Your task to perform on an android device: Open privacy settings Image 0: 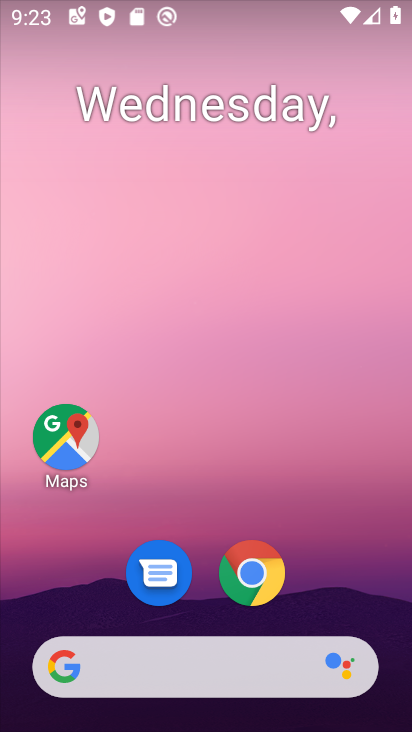
Step 0: click (250, 558)
Your task to perform on an android device: Open privacy settings Image 1: 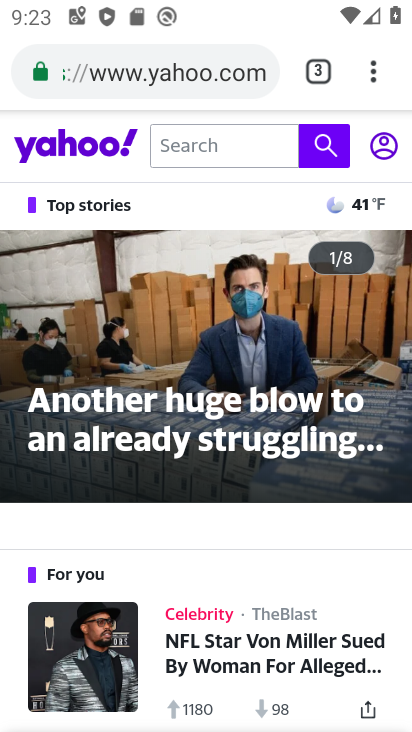
Step 1: click (370, 62)
Your task to perform on an android device: Open privacy settings Image 2: 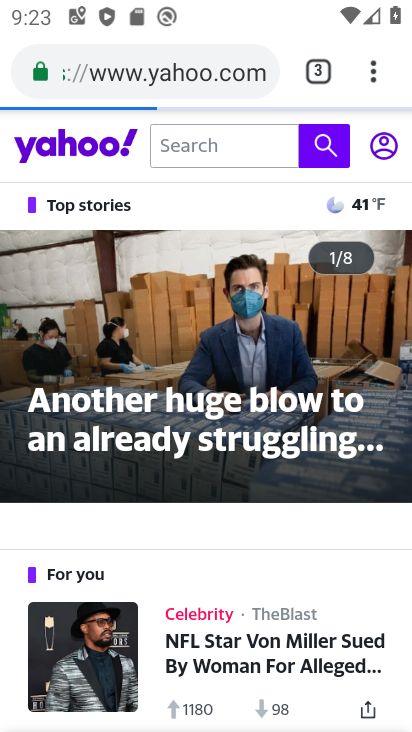
Step 2: click (370, 62)
Your task to perform on an android device: Open privacy settings Image 3: 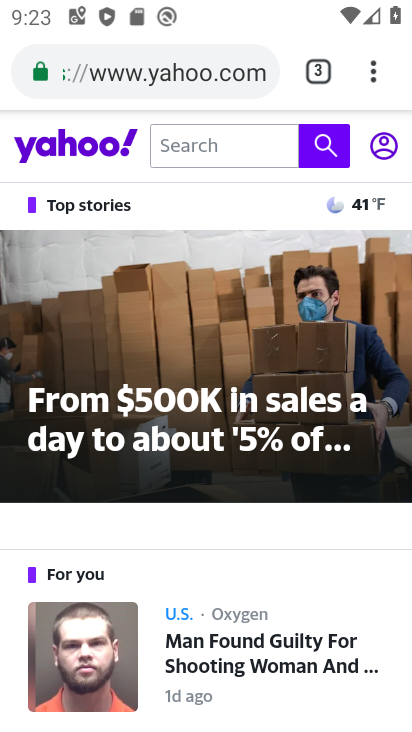
Step 3: click (370, 62)
Your task to perform on an android device: Open privacy settings Image 4: 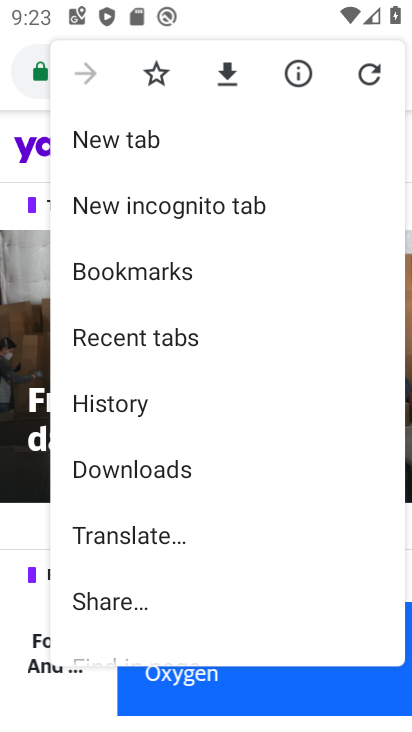
Step 4: drag from (207, 472) to (186, 267)
Your task to perform on an android device: Open privacy settings Image 5: 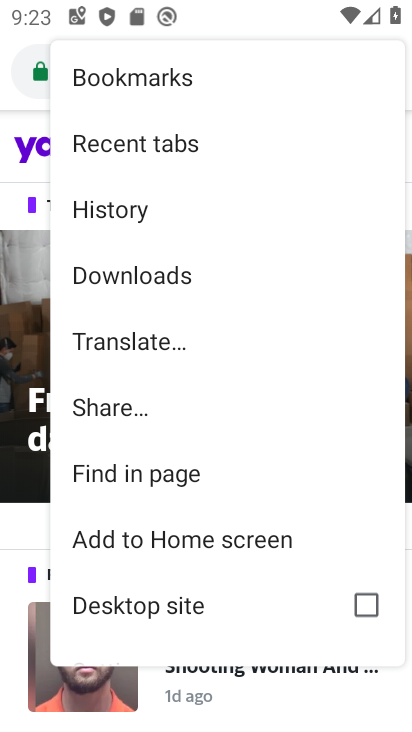
Step 5: drag from (315, 569) to (293, 223)
Your task to perform on an android device: Open privacy settings Image 6: 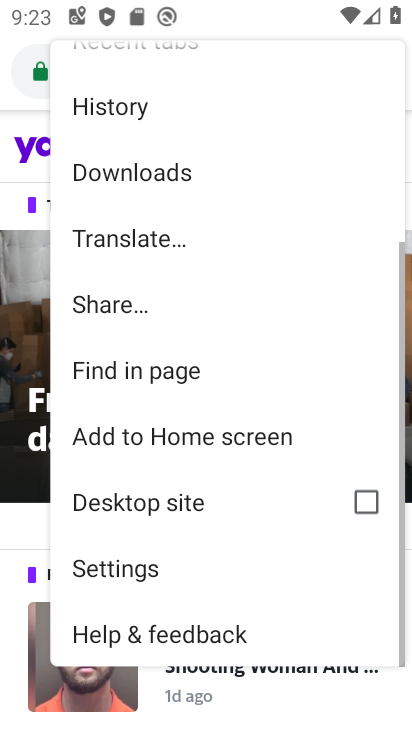
Step 6: click (131, 561)
Your task to perform on an android device: Open privacy settings Image 7: 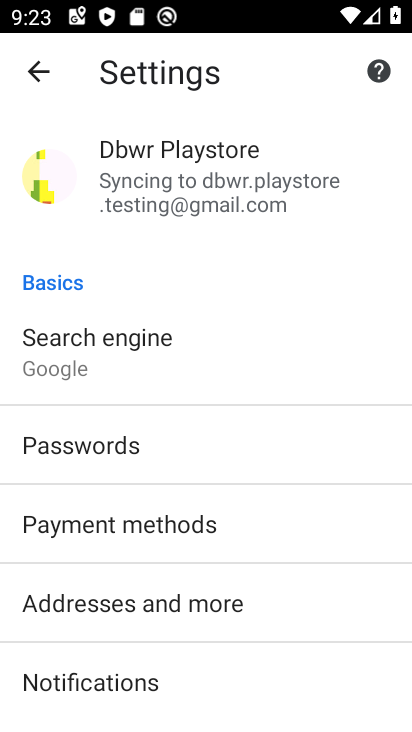
Step 7: drag from (340, 479) to (347, 349)
Your task to perform on an android device: Open privacy settings Image 8: 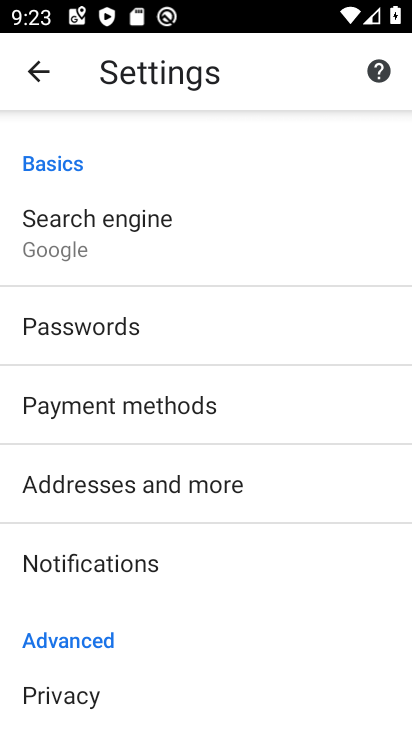
Step 8: drag from (297, 589) to (295, 355)
Your task to perform on an android device: Open privacy settings Image 9: 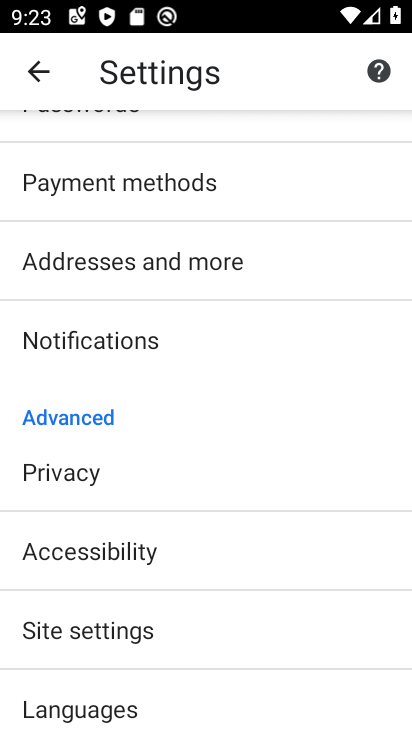
Step 9: click (61, 466)
Your task to perform on an android device: Open privacy settings Image 10: 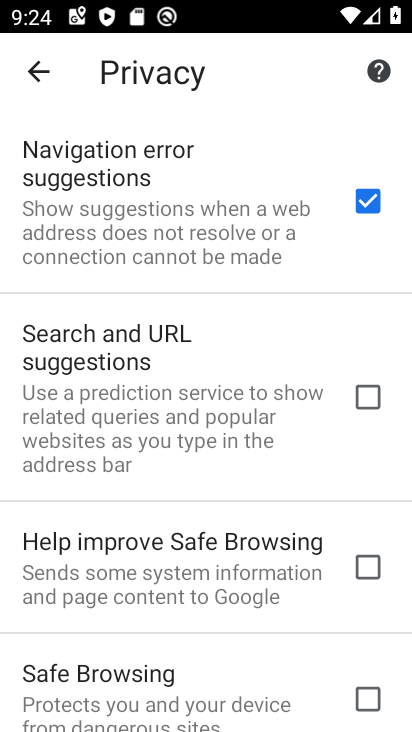
Step 10: task complete